Your task to perform on an android device: set an alarm Image 0: 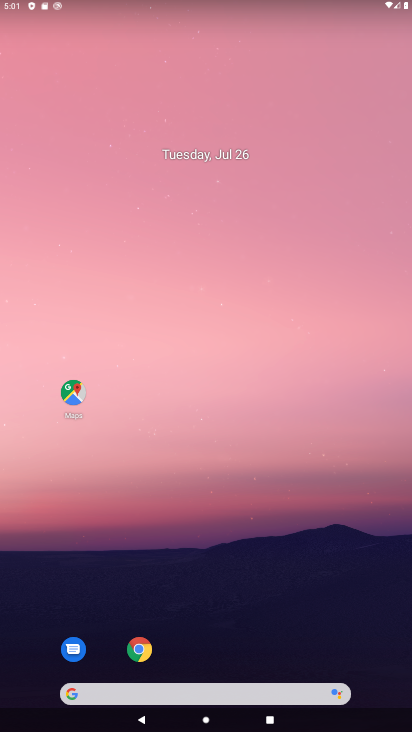
Step 0: drag from (277, 638) to (208, 82)
Your task to perform on an android device: set an alarm Image 1: 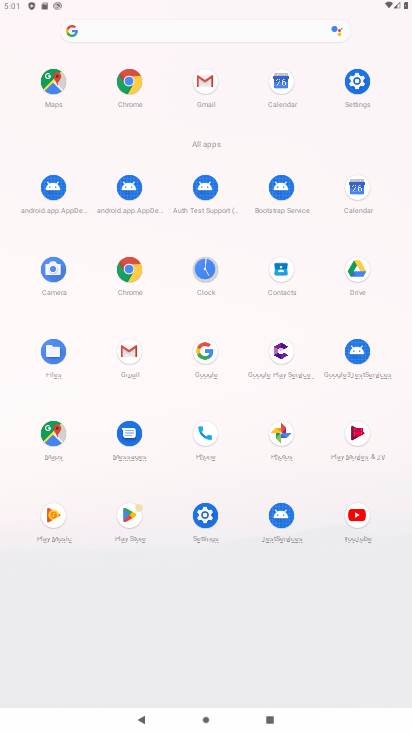
Step 1: click (212, 270)
Your task to perform on an android device: set an alarm Image 2: 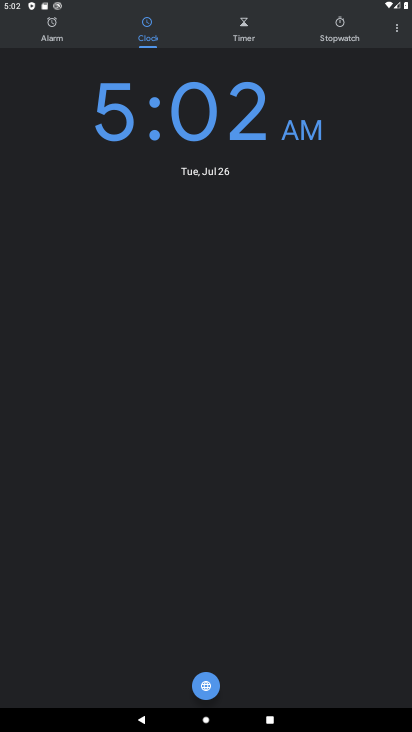
Step 2: click (40, 40)
Your task to perform on an android device: set an alarm Image 3: 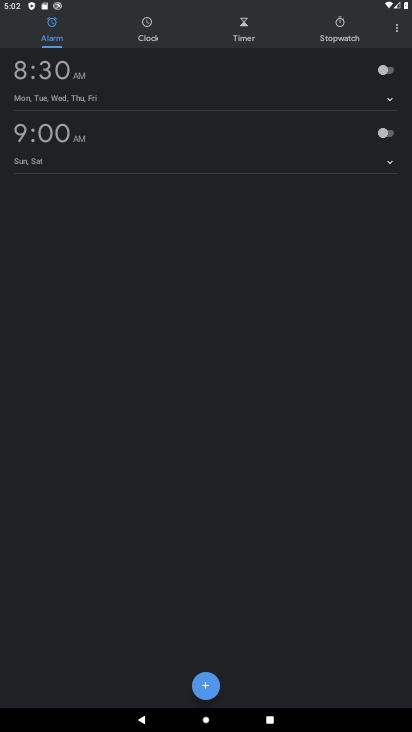
Step 3: click (203, 691)
Your task to perform on an android device: set an alarm Image 4: 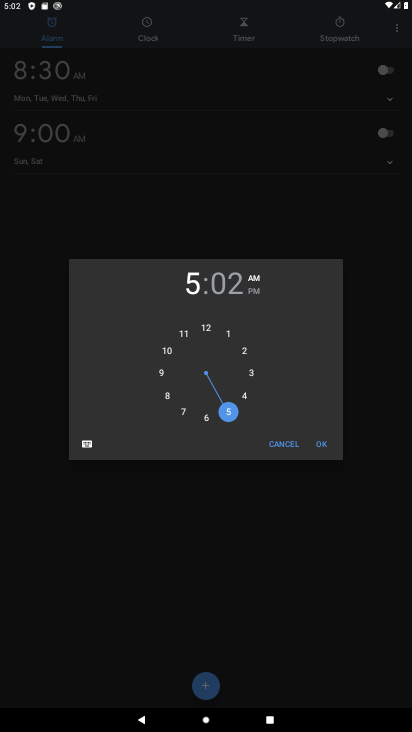
Step 4: click (322, 449)
Your task to perform on an android device: set an alarm Image 5: 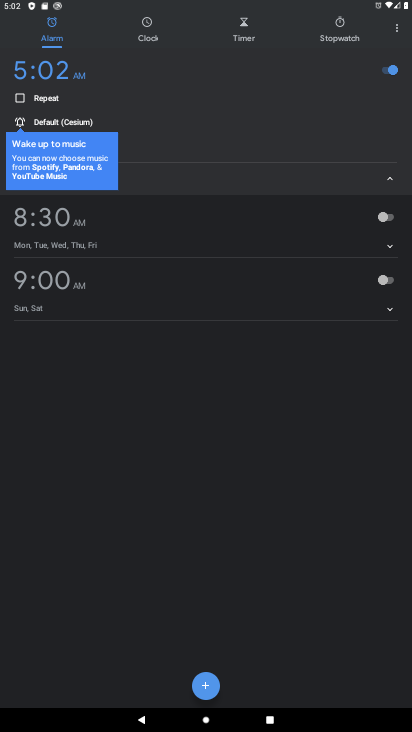
Step 5: task complete